Your task to perform on an android device: What's the weather today? Image 0: 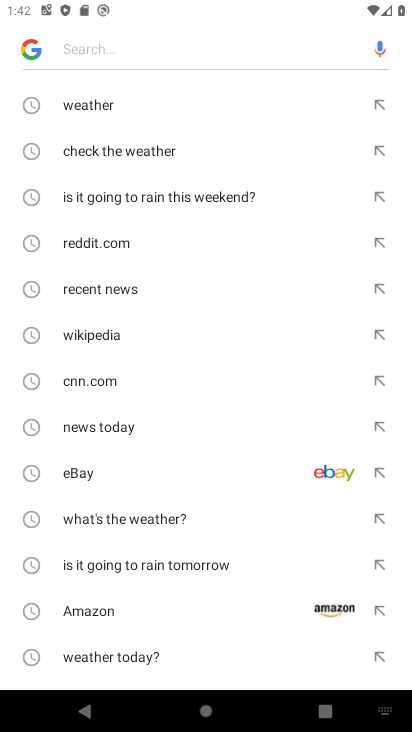
Step 0: press back button
Your task to perform on an android device: What's the weather today? Image 1: 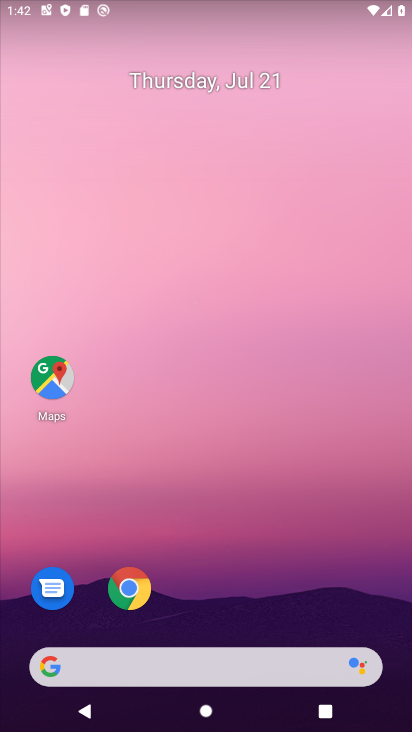
Step 1: click (243, 684)
Your task to perform on an android device: What's the weather today? Image 2: 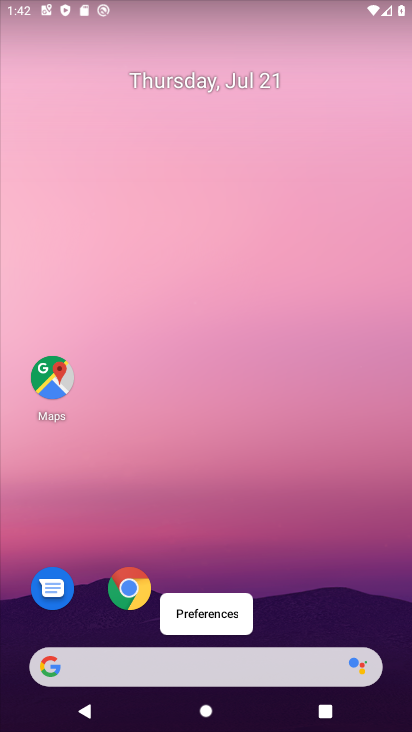
Step 2: click (257, 658)
Your task to perform on an android device: What's the weather today? Image 3: 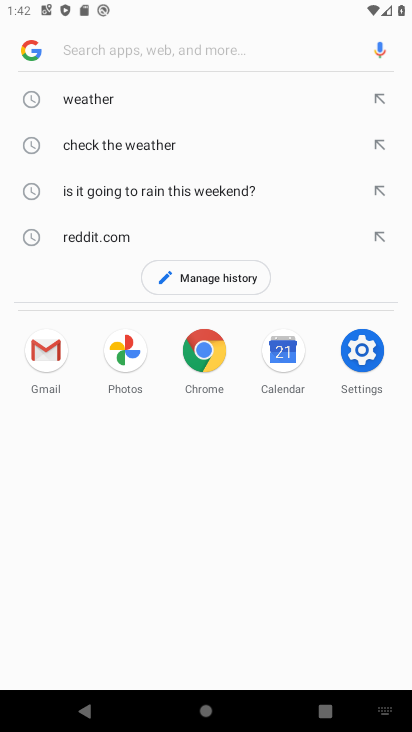
Step 3: click (97, 104)
Your task to perform on an android device: What's the weather today? Image 4: 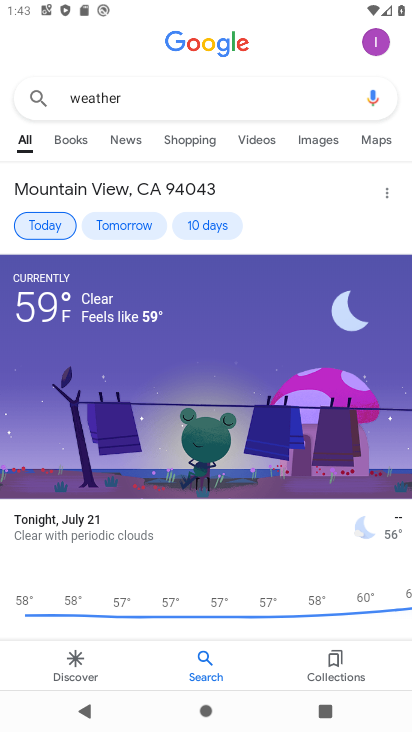
Step 4: click (64, 220)
Your task to perform on an android device: What's the weather today? Image 5: 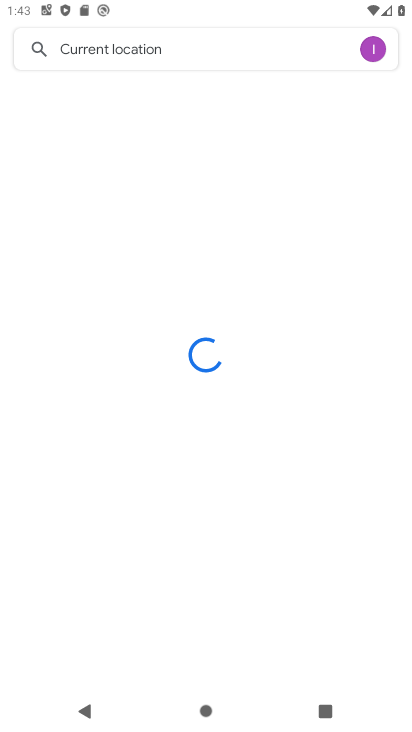
Step 5: task complete